Your task to perform on an android device: refresh tabs in the chrome app Image 0: 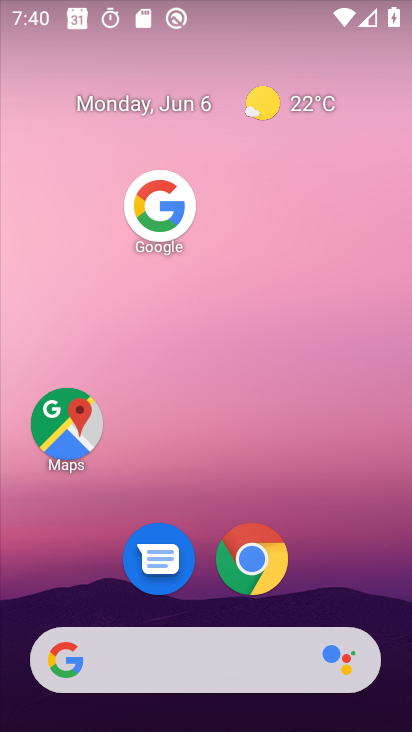
Step 0: drag from (307, 481) to (347, 120)
Your task to perform on an android device: refresh tabs in the chrome app Image 1: 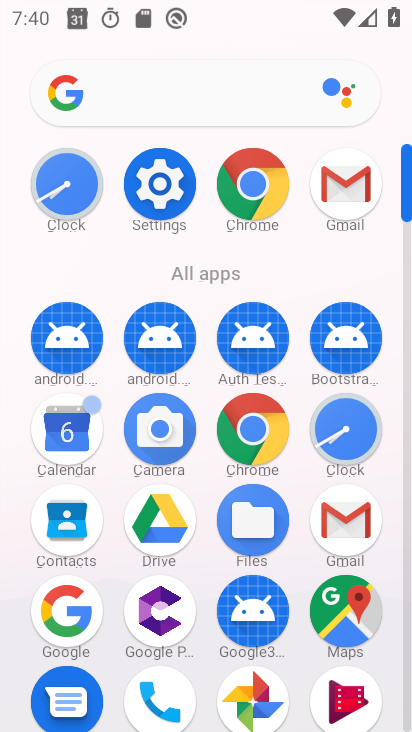
Step 1: click (247, 180)
Your task to perform on an android device: refresh tabs in the chrome app Image 2: 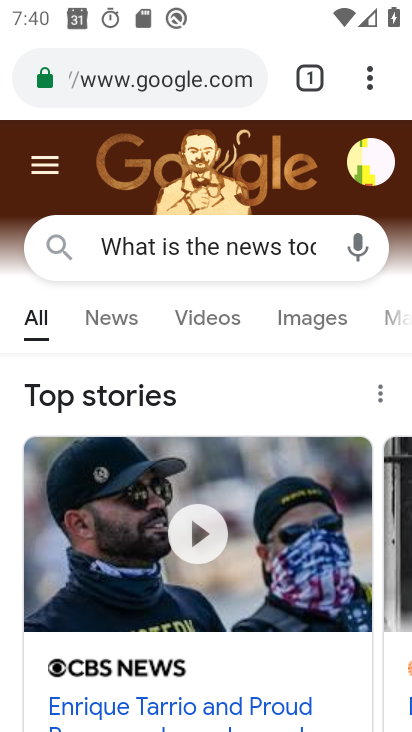
Step 2: click (361, 76)
Your task to perform on an android device: refresh tabs in the chrome app Image 3: 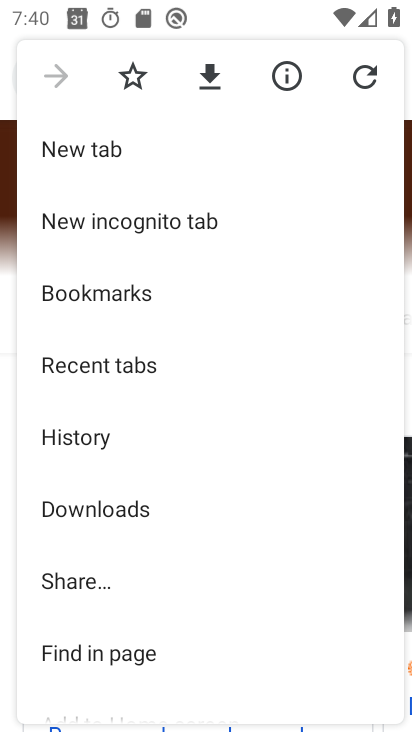
Step 3: click (372, 88)
Your task to perform on an android device: refresh tabs in the chrome app Image 4: 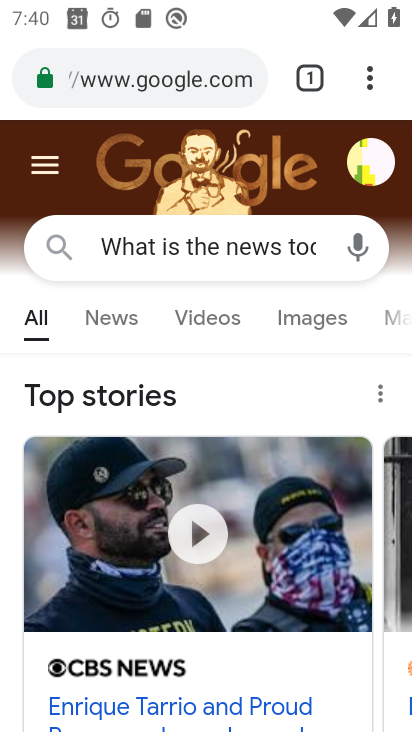
Step 4: task complete